Your task to perform on an android device: Search for a 36" x 48" whiteboard on Home Depot Image 0: 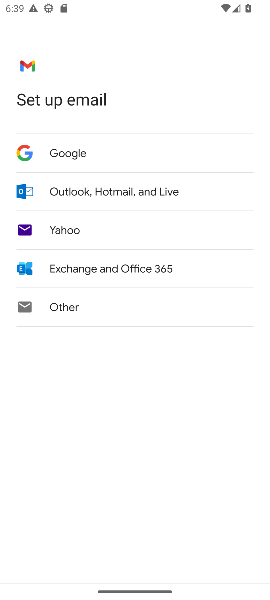
Step 0: press home button
Your task to perform on an android device: Search for a 36" x 48" whiteboard on Home Depot Image 1: 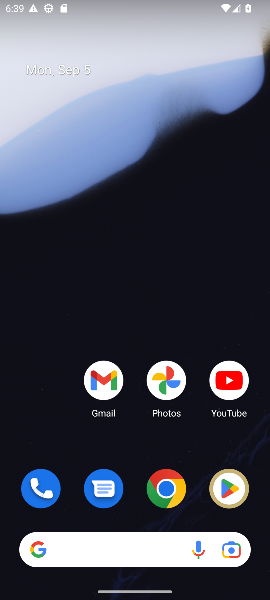
Step 1: click (170, 494)
Your task to perform on an android device: Search for a 36" x 48" whiteboard on Home Depot Image 2: 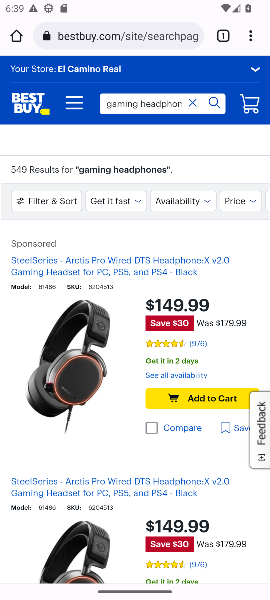
Step 2: click (125, 35)
Your task to perform on an android device: Search for a 36" x 48" whiteboard on Home Depot Image 3: 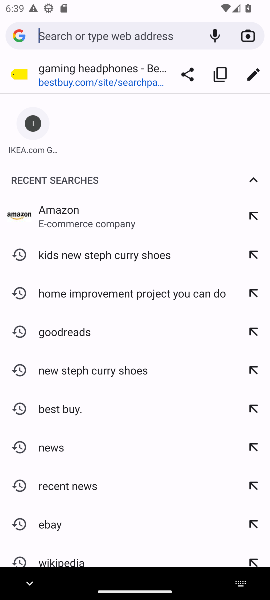
Step 3: type "home depot"
Your task to perform on an android device: Search for a 36" x 48" whiteboard on Home Depot Image 4: 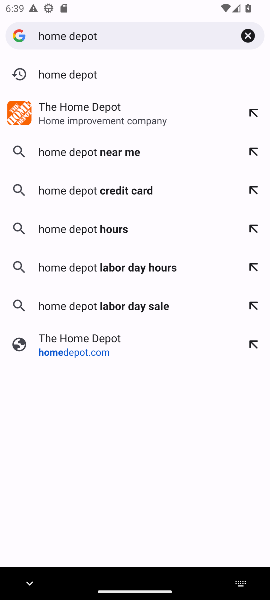
Step 4: press enter
Your task to perform on an android device: Search for a 36" x 48" whiteboard on Home Depot Image 5: 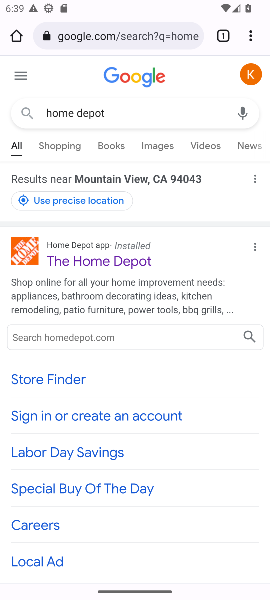
Step 5: click (94, 263)
Your task to perform on an android device: Search for a 36" x 48" whiteboard on Home Depot Image 6: 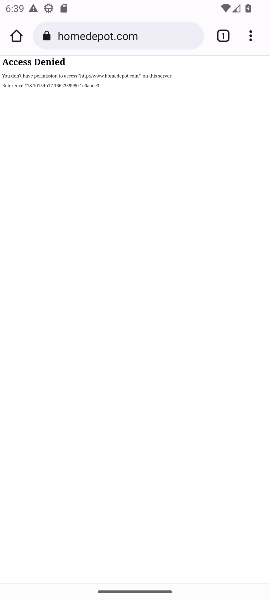
Step 6: task complete